Your task to perform on an android device: What's the weather? Image 0: 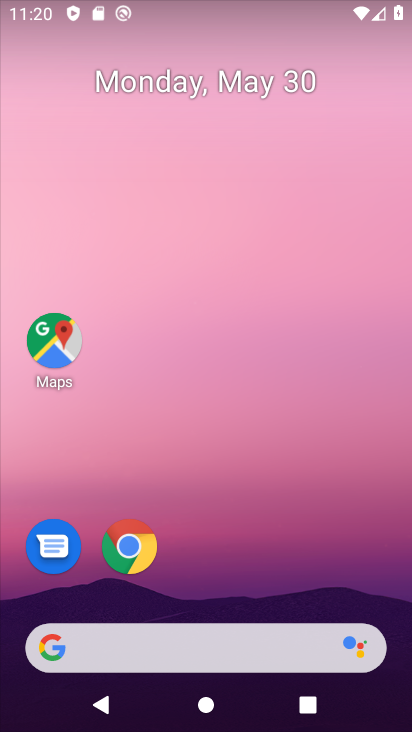
Step 0: drag from (254, 585) to (269, 141)
Your task to perform on an android device: What's the weather? Image 1: 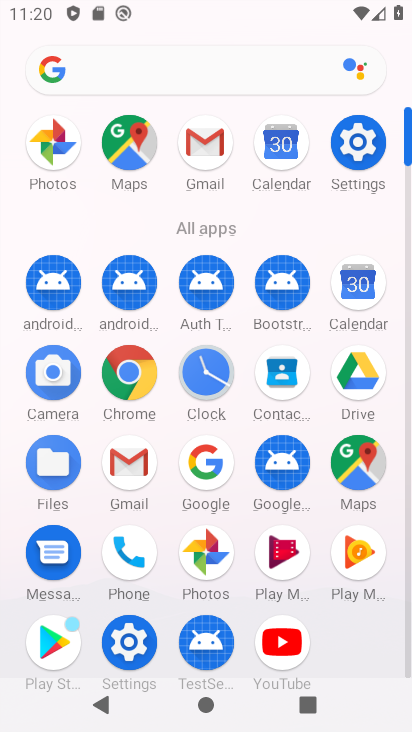
Step 1: click (201, 461)
Your task to perform on an android device: What's the weather? Image 2: 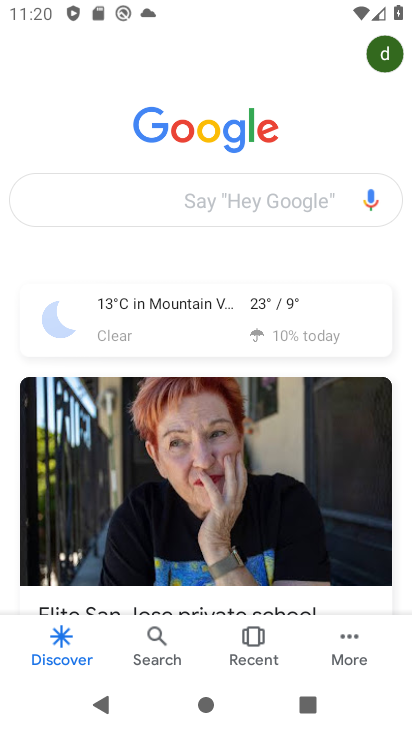
Step 2: click (150, 303)
Your task to perform on an android device: What's the weather? Image 3: 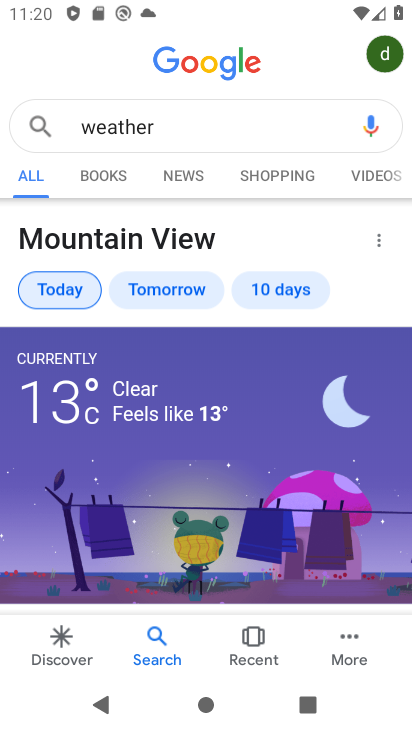
Step 3: task complete